Your task to perform on an android device: Search for the best rated headphones on Amazon. Image 0: 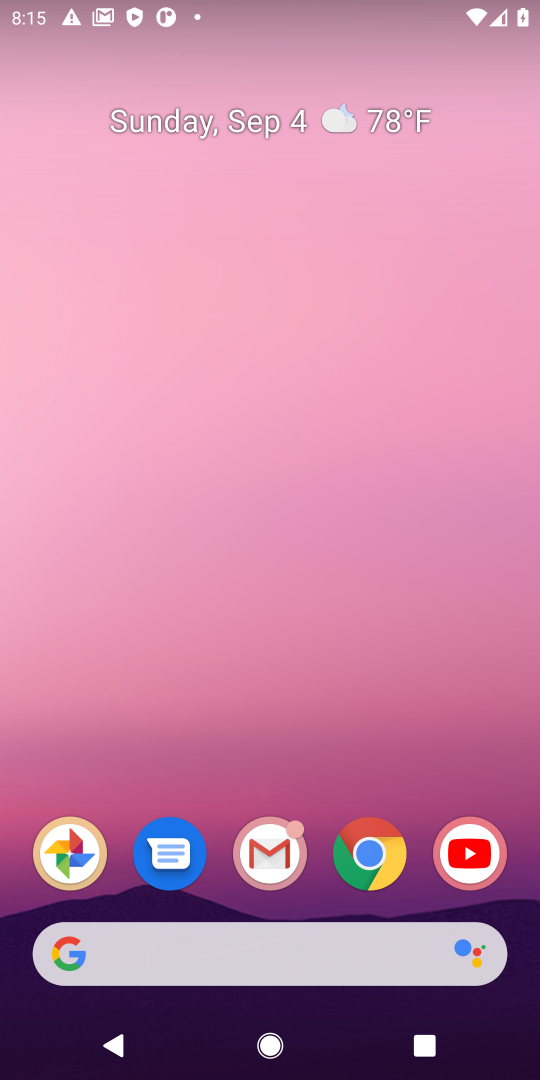
Step 0: press home button
Your task to perform on an android device: Search for the best rated headphones on Amazon. Image 1: 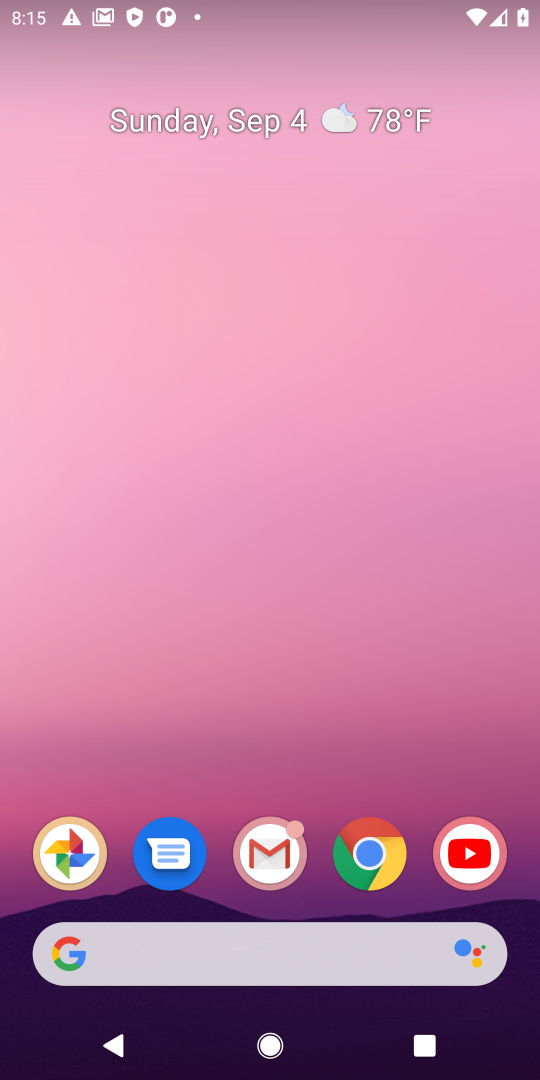
Step 1: drag from (326, 797) to (278, 3)
Your task to perform on an android device: Search for the best rated headphones on Amazon. Image 2: 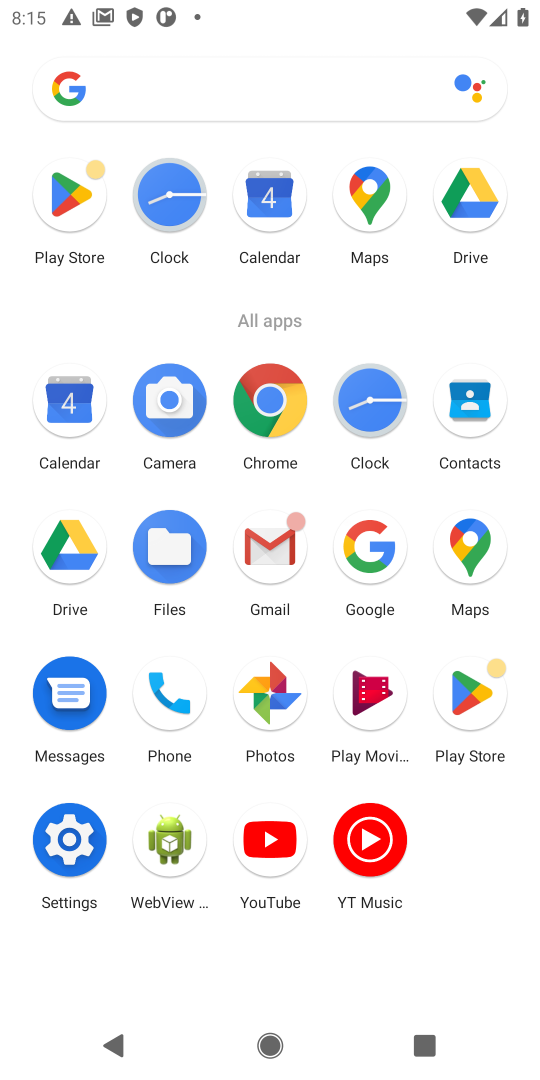
Step 2: click (269, 394)
Your task to perform on an android device: Search for the best rated headphones on Amazon. Image 3: 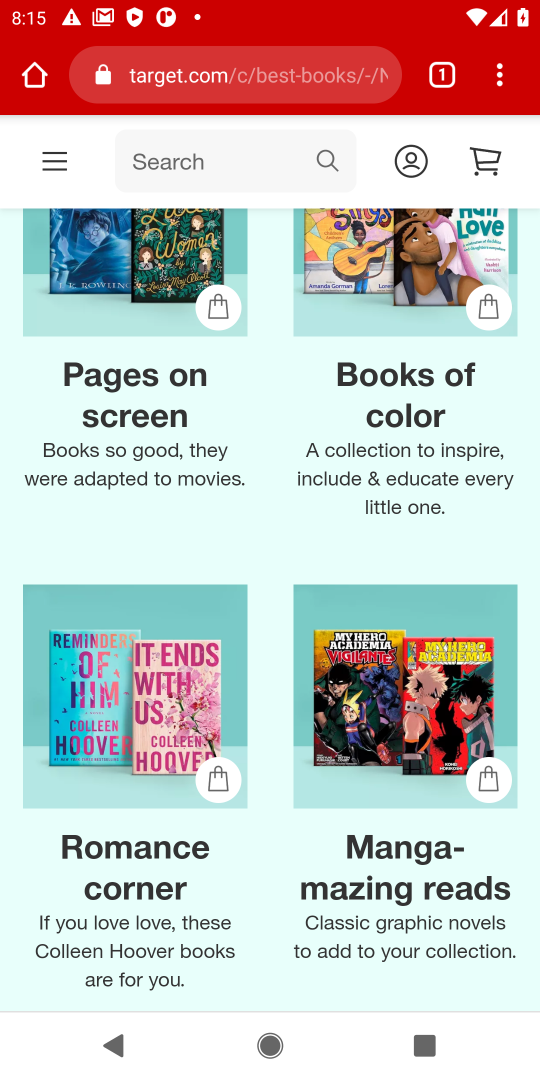
Step 3: click (437, 79)
Your task to perform on an android device: Search for the best rated headphones on Amazon. Image 4: 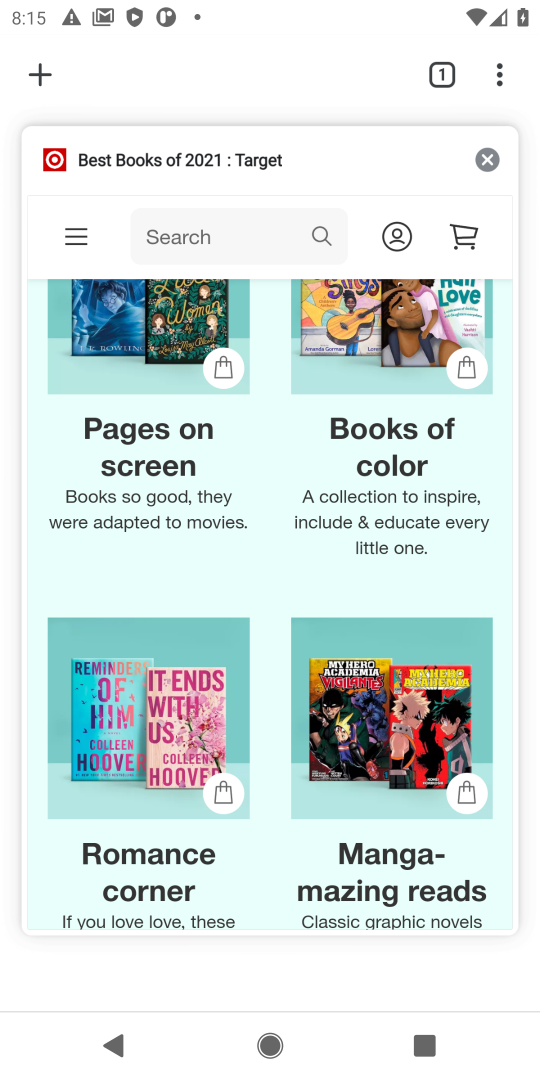
Step 4: click (491, 158)
Your task to perform on an android device: Search for the best rated headphones on Amazon. Image 5: 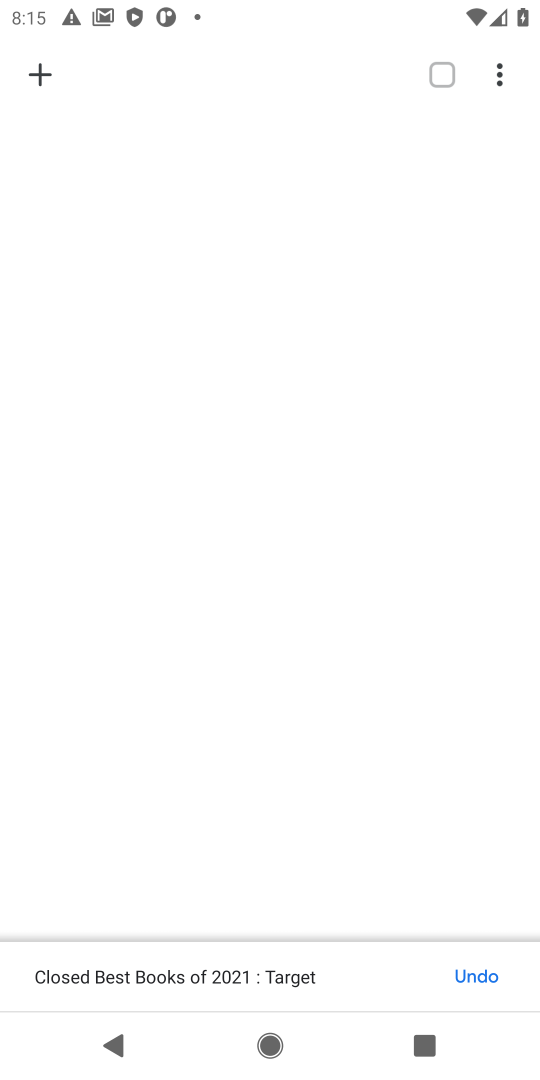
Step 5: click (49, 81)
Your task to perform on an android device: Search for the best rated headphones on Amazon. Image 6: 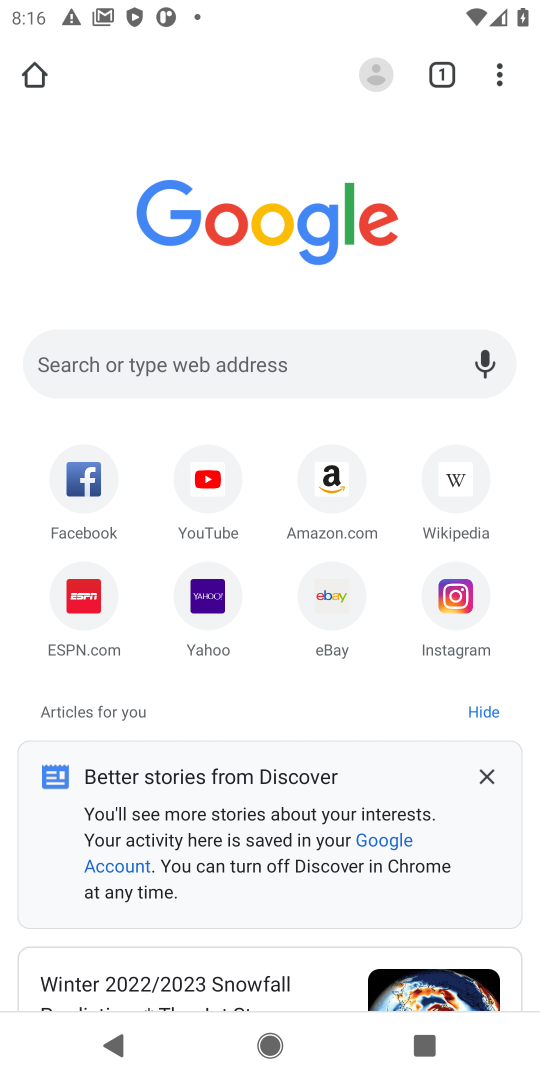
Step 6: click (191, 361)
Your task to perform on an android device: Search for the best rated headphones on Amazon. Image 7: 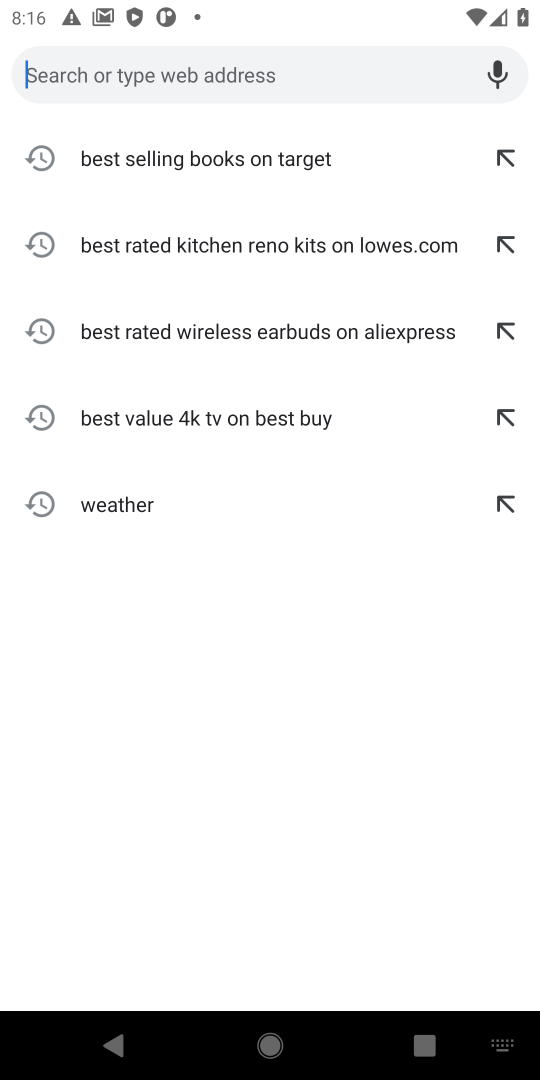
Step 7: type "best rated headphones on Amazon"
Your task to perform on an android device: Search for the best rated headphones on Amazon. Image 8: 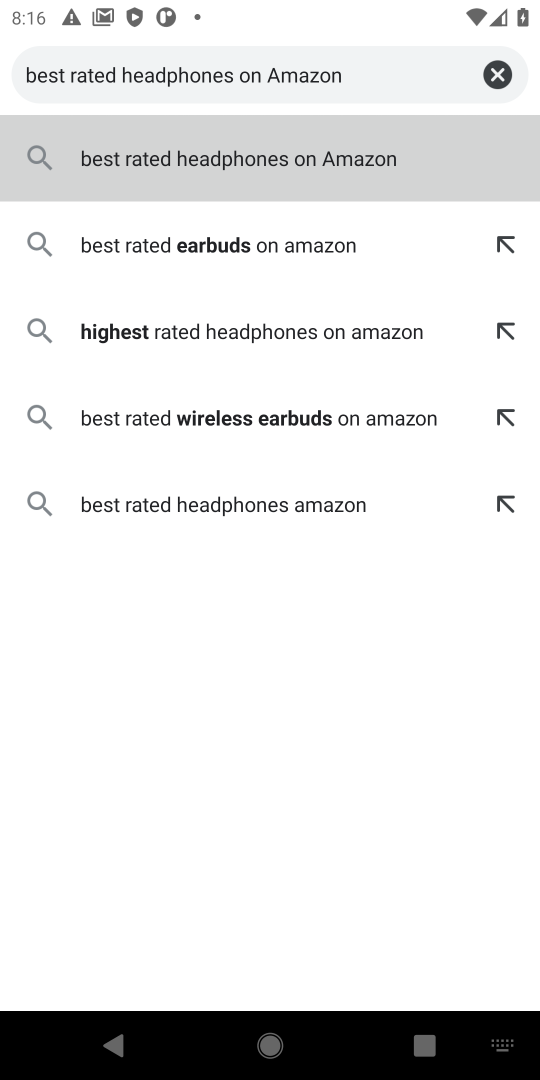
Step 8: click (185, 154)
Your task to perform on an android device: Search for the best rated headphones on Amazon. Image 9: 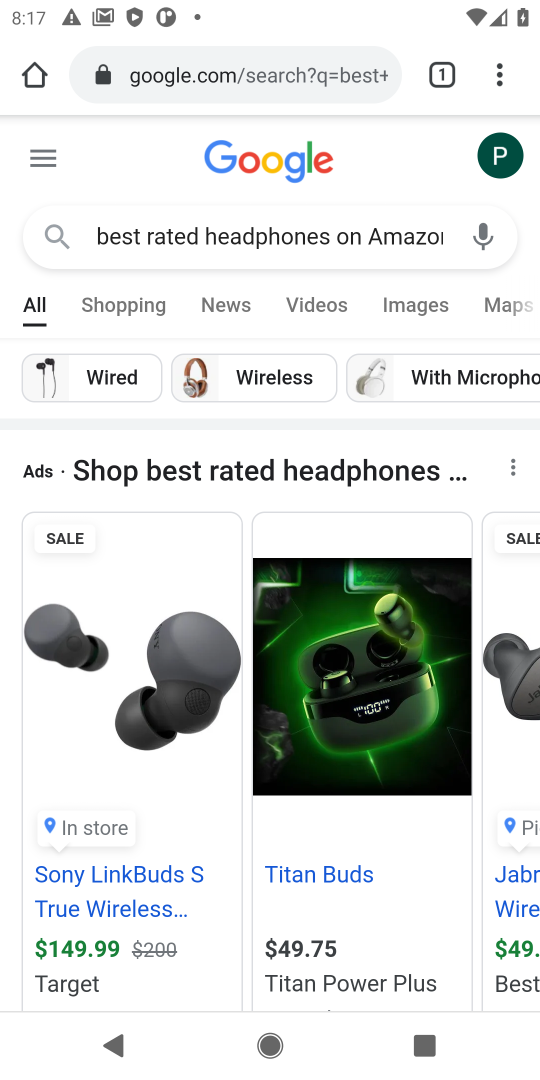
Step 9: drag from (245, 746) to (261, 306)
Your task to perform on an android device: Search for the best rated headphones on Amazon. Image 10: 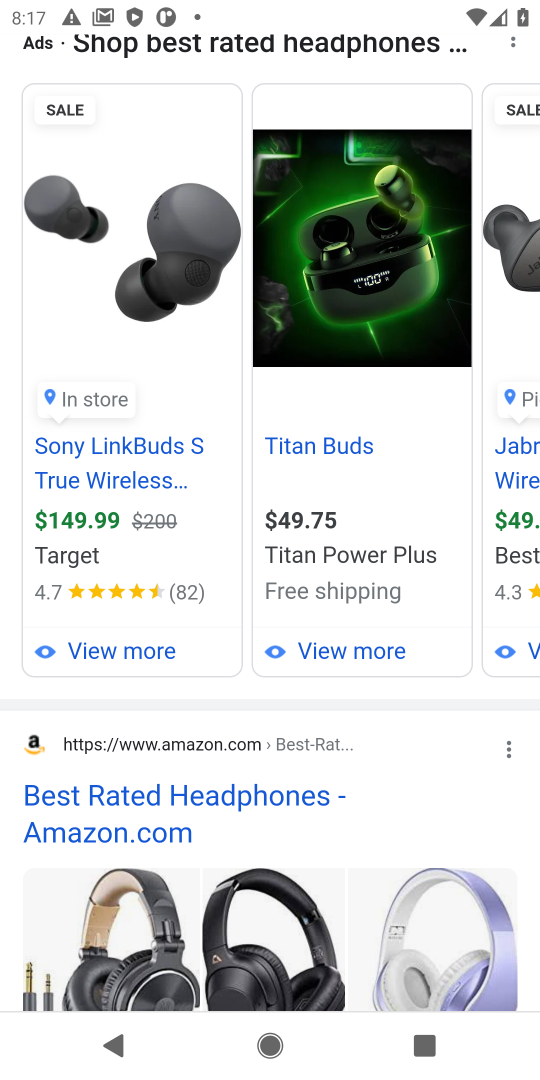
Step 10: click (234, 792)
Your task to perform on an android device: Search for the best rated headphones on Amazon. Image 11: 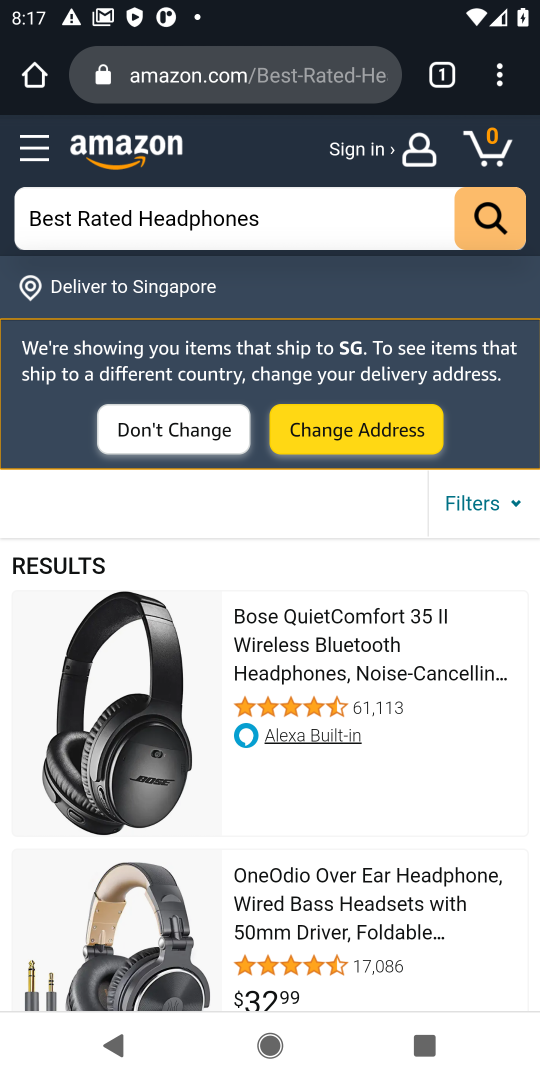
Step 11: task complete